Your task to perform on an android device: open a new tab in the chrome app Image 0: 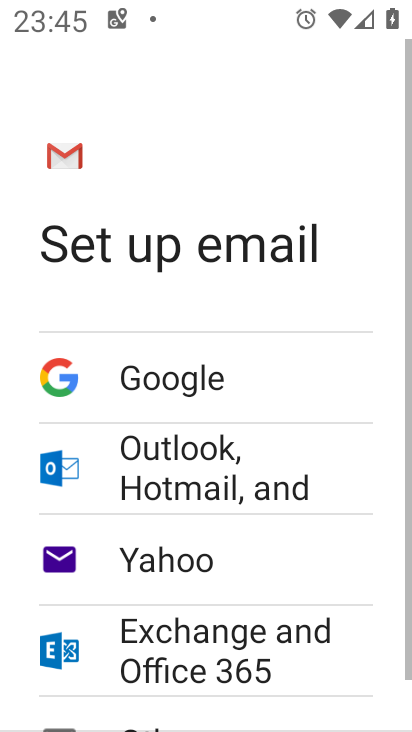
Step 0: press home button
Your task to perform on an android device: open a new tab in the chrome app Image 1: 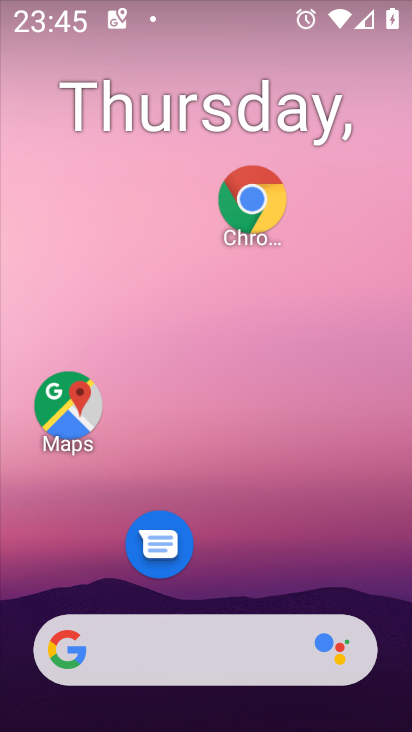
Step 1: click (250, 197)
Your task to perform on an android device: open a new tab in the chrome app Image 2: 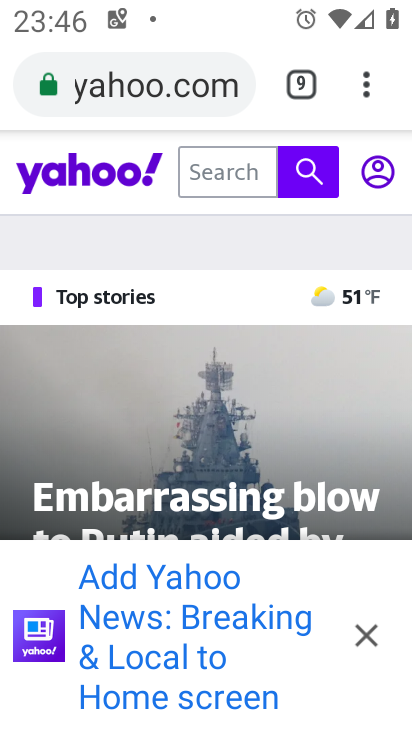
Step 2: click (305, 95)
Your task to perform on an android device: open a new tab in the chrome app Image 3: 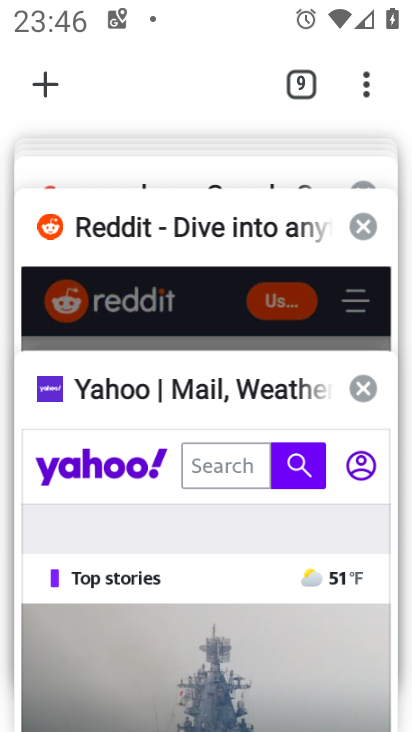
Step 3: click (63, 88)
Your task to perform on an android device: open a new tab in the chrome app Image 4: 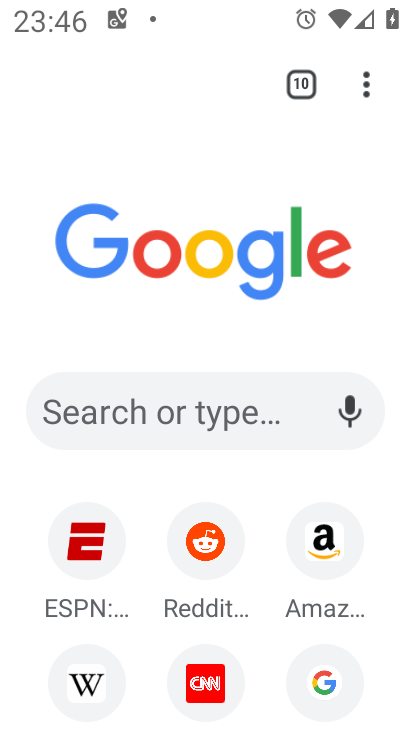
Step 4: task complete